Your task to perform on an android device: clear all cookies in the chrome app Image 0: 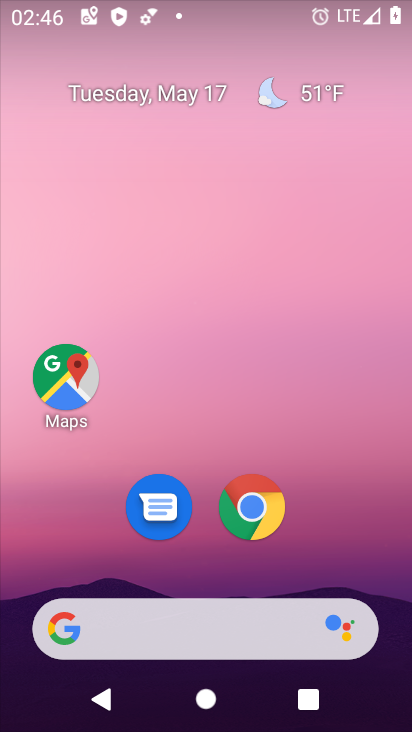
Step 0: click (256, 505)
Your task to perform on an android device: clear all cookies in the chrome app Image 1: 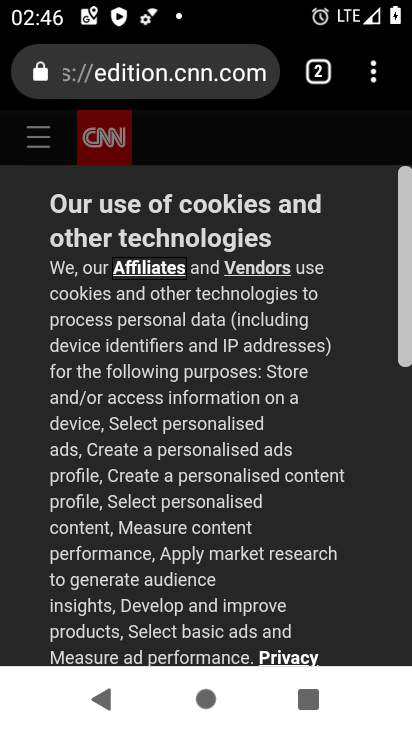
Step 1: click (373, 81)
Your task to perform on an android device: clear all cookies in the chrome app Image 2: 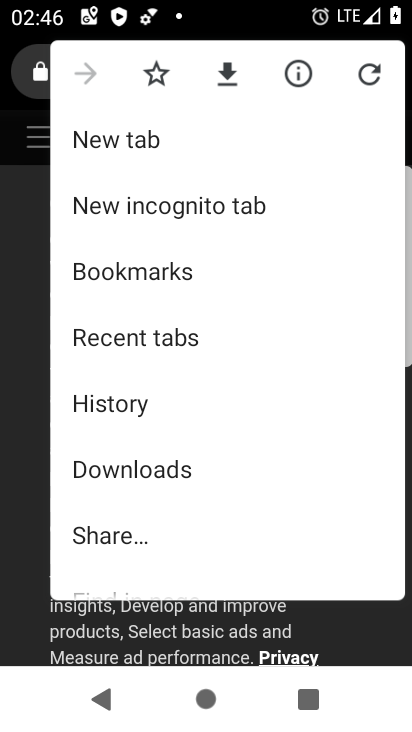
Step 2: drag from (197, 542) to (178, 462)
Your task to perform on an android device: clear all cookies in the chrome app Image 3: 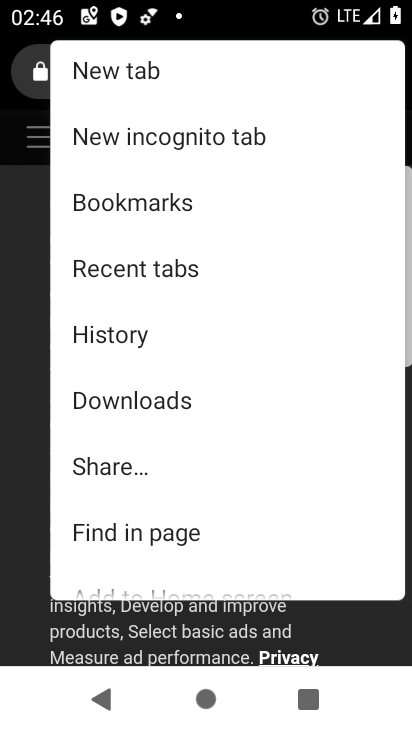
Step 3: click (129, 330)
Your task to perform on an android device: clear all cookies in the chrome app Image 4: 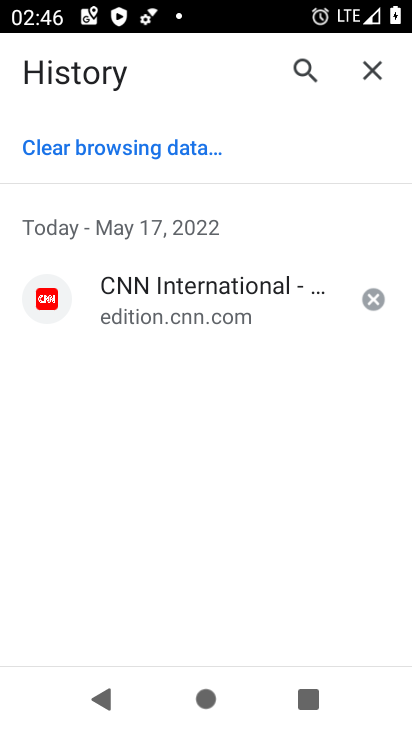
Step 4: click (106, 134)
Your task to perform on an android device: clear all cookies in the chrome app Image 5: 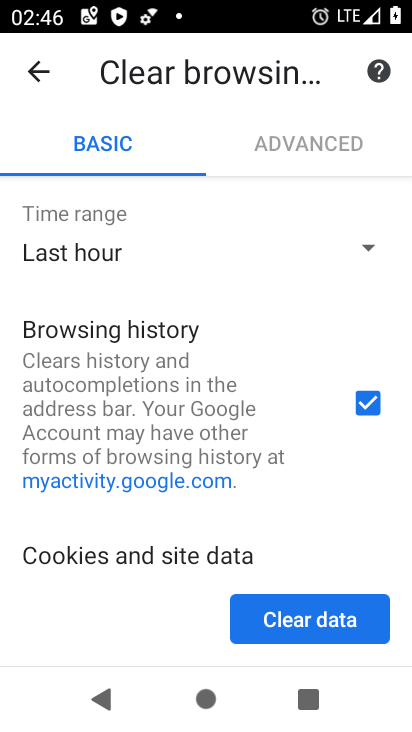
Step 5: drag from (190, 502) to (240, 269)
Your task to perform on an android device: clear all cookies in the chrome app Image 6: 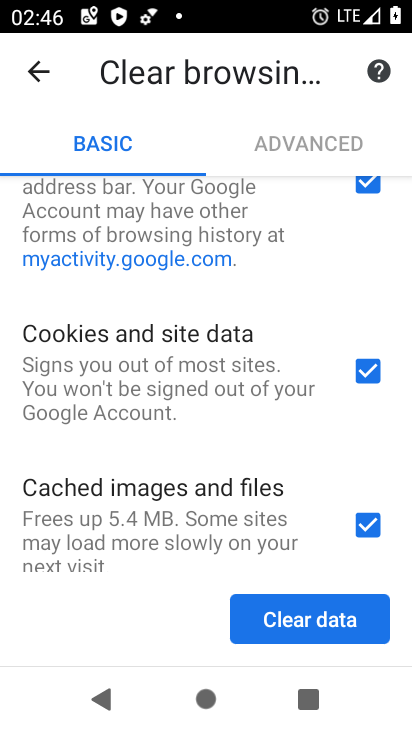
Step 6: click (304, 226)
Your task to perform on an android device: clear all cookies in the chrome app Image 7: 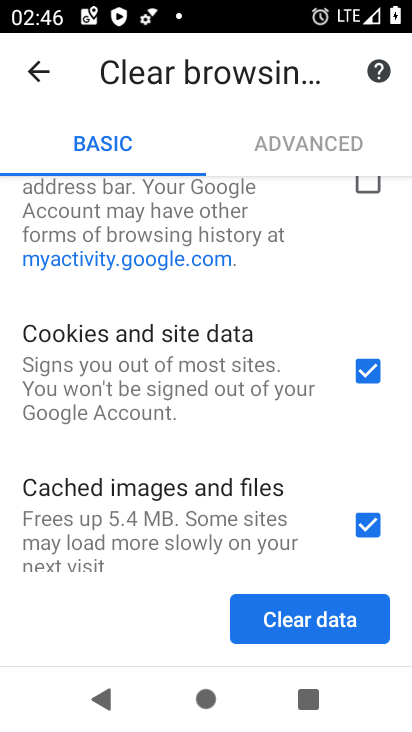
Step 7: click (326, 533)
Your task to perform on an android device: clear all cookies in the chrome app Image 8: 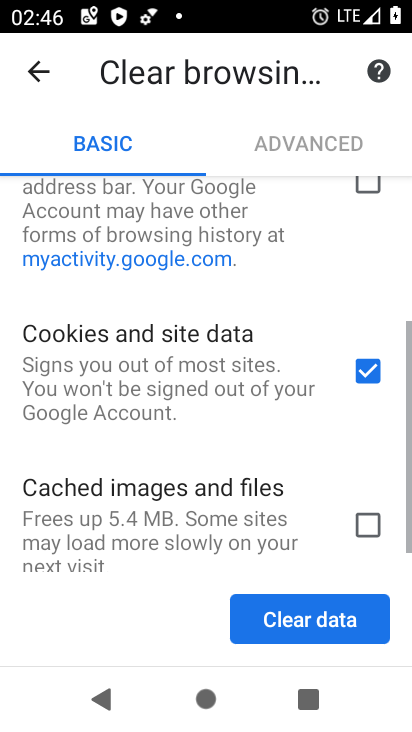
Step 8: click (292, 620)
Your task to perform on an android device: clear all cookies in the chrome app Image 9: 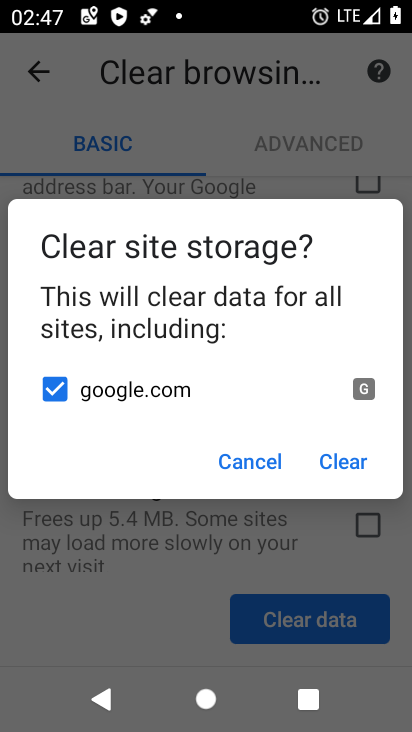
Step 9: click (355, 452)
Your task to perform on an android device: clear all cookies in the chrome app Image 10: 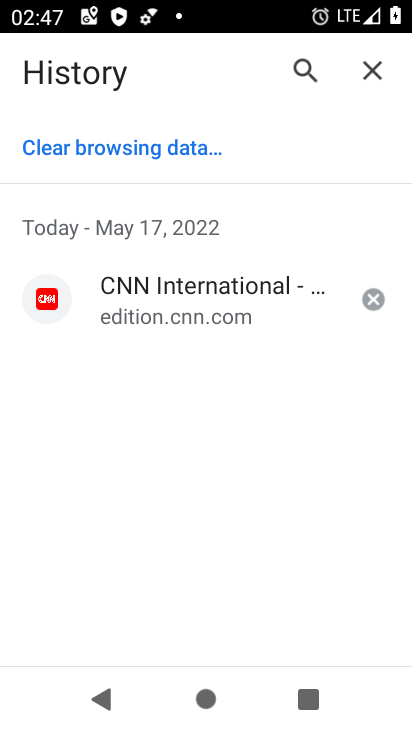
Step 10: task complete